Your task to perform on an android device: Open display settings Image 0: 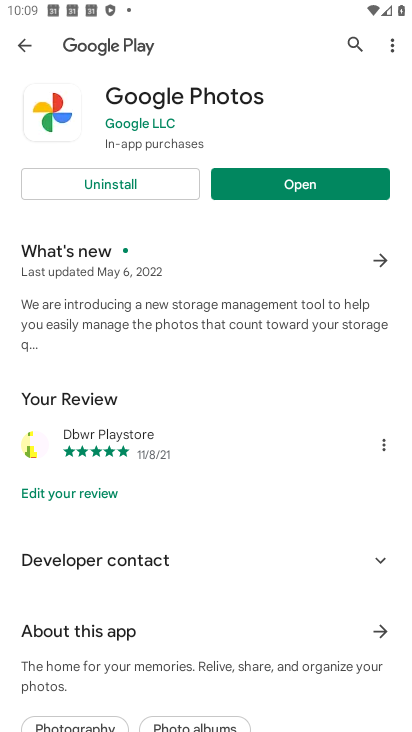
Step 0: press home button
Your task to perform on an android device: Open display settings Image 1: 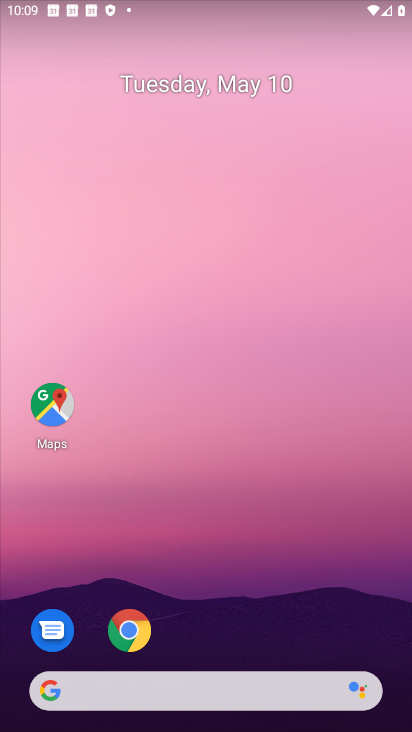
Step 1: drag from (233, 726) to (322, 1)
Your task to perform on an android device: Open display settings Image 2: 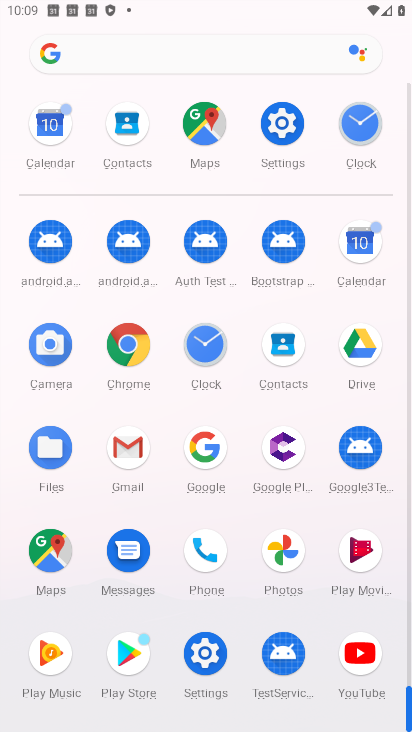
Step 2: click (286, 142)
Your task to perform on an android device: Open display settings Image 3: 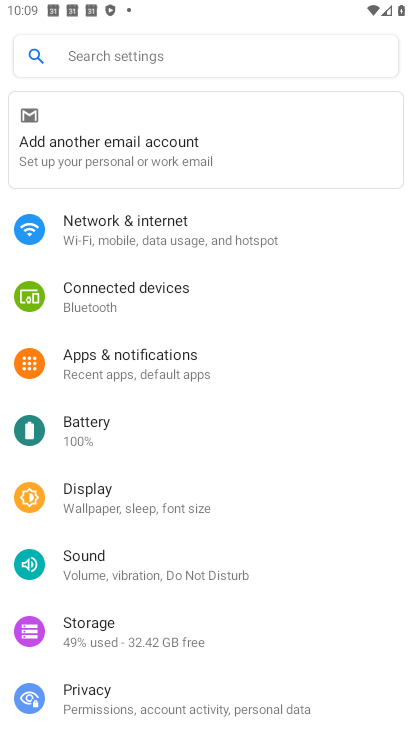
Step 3: click (167, 500)
Your task to perform on an android device: Open display settings Image 4: 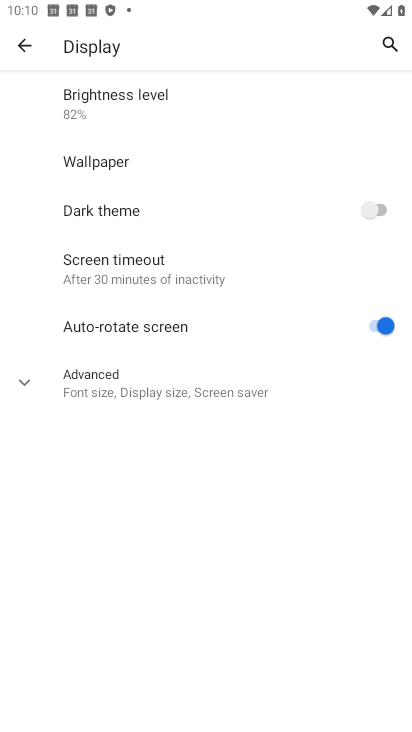
Step 4: task complete